Your task to perform on an android device: Open display settings Image 0: 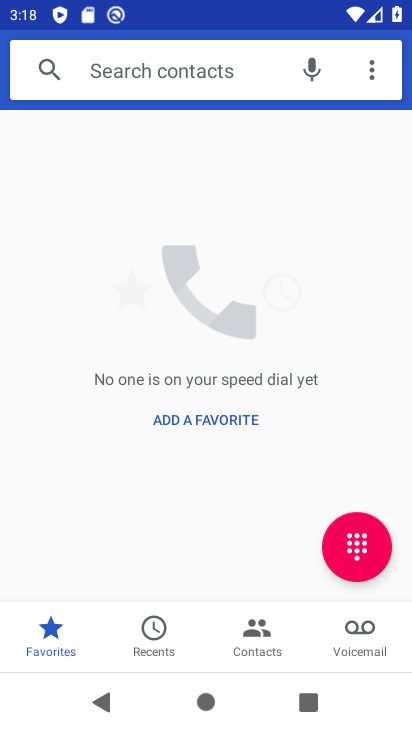
Step 0: press home button
Your task to perform on an android device: Open display settings Image 1: 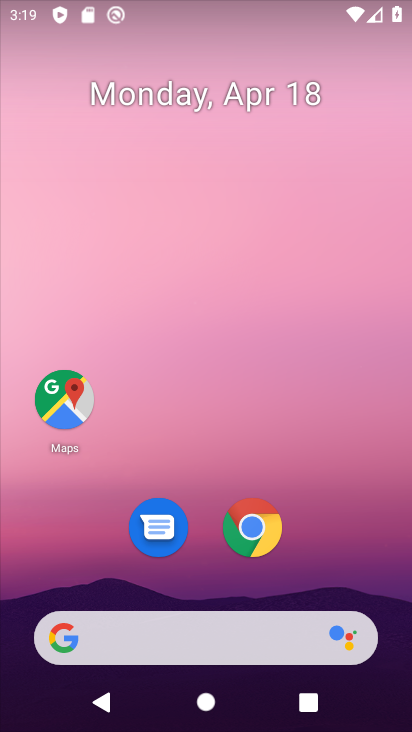
Step 1: drag from (165, 625) to (139, 115)
Your task to perform on an android device: Open display settings Image 2: 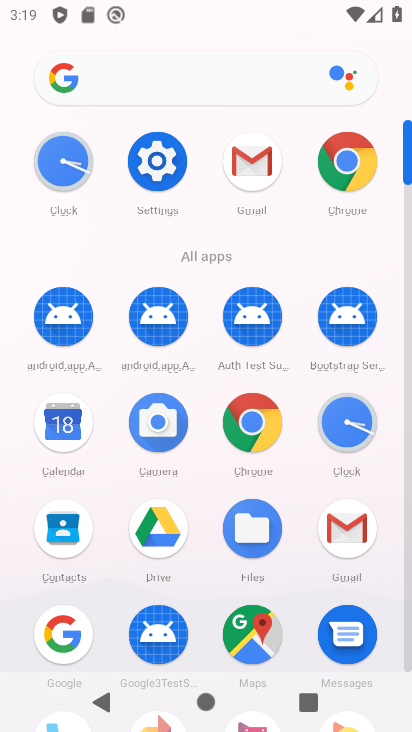
Step 2: click (161, 151)
Your task to perform on an android device: Open display settings Image 3: 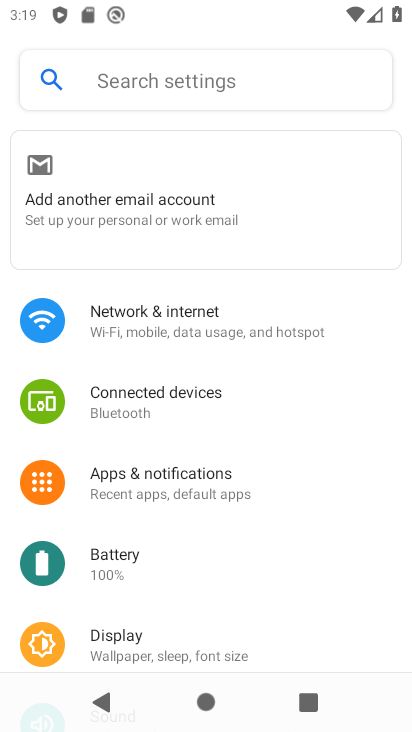
Step 3: click (106, 652)
Your task to perform on an android device: Open display settings Image 4: 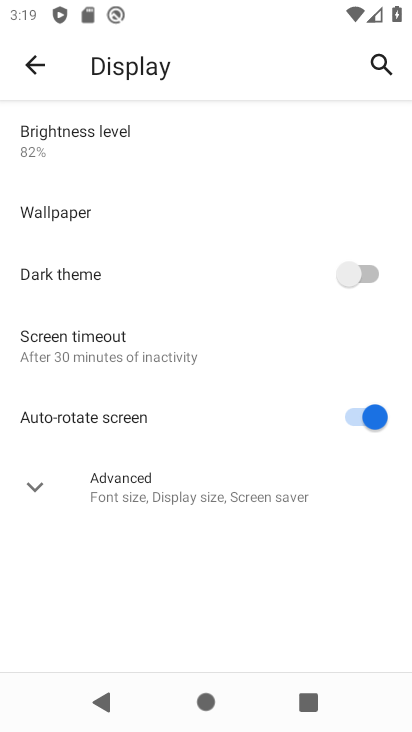
Step 4: task complete